Your task to perform on an android device: open a bookmark in the chrome app Image 0: 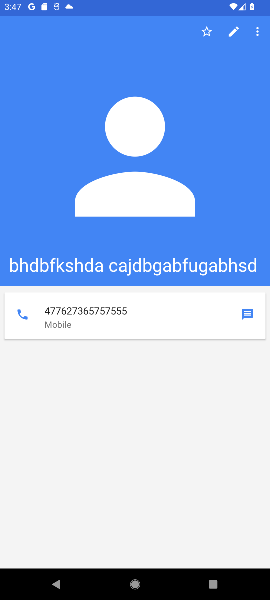
Step 0: press back button
Your task to perform on an android device: open a bookmark in the chrome app Image 1: 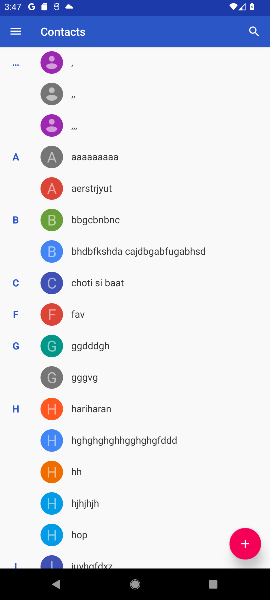
Step 1: press home button
Your task to perform on an android device: open a bookmark in the chrome app Image 2: 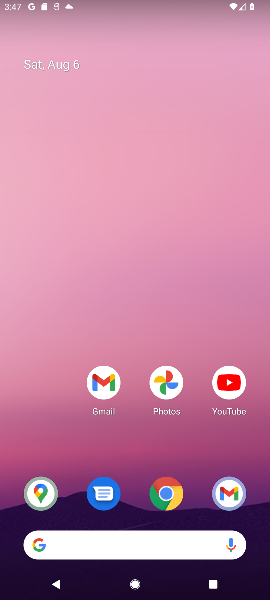
Step 2: drag from (154, 497) to (131, 50)
Your task to perform on an android device: open a bookmark in the chrome app Image 3: 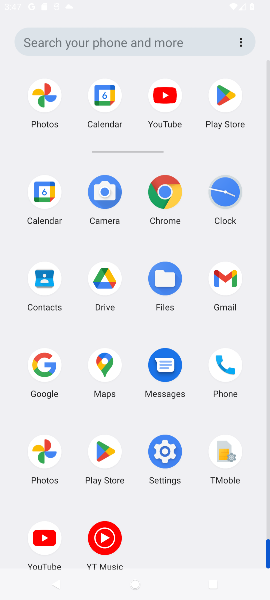
Step 3: drag from (107, 323) to (93, 41)
Your task to perform on an android device: open a bookmark in the chrome app Image 4: 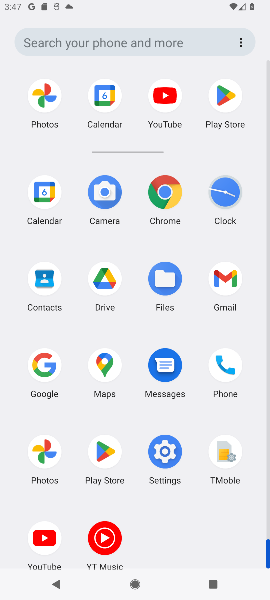
Step 4: click (153, 196)
Your task to perform on an android device: open a bookmark in the chrome app Image 5: 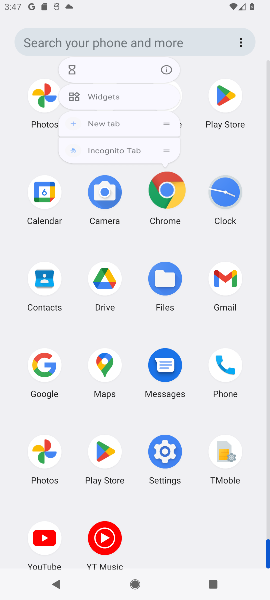
Step 5: click (156, 193)
Your task to perform on an android device: open a bookmark in the chrome app Image 6: 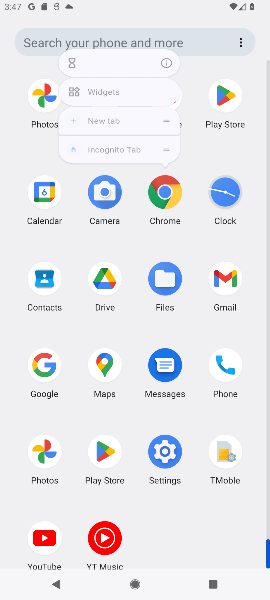
Step 6: click (156, 193)
Your task to perform on an android device: open a bookmark in the chrome app Image 7: 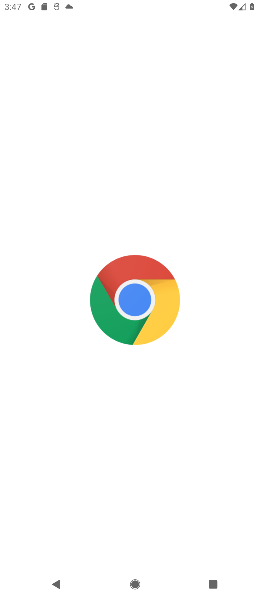
Step 7: click (161, 190)
Your task to perform on an android device: open a bookmark in the chrome app Image 8: 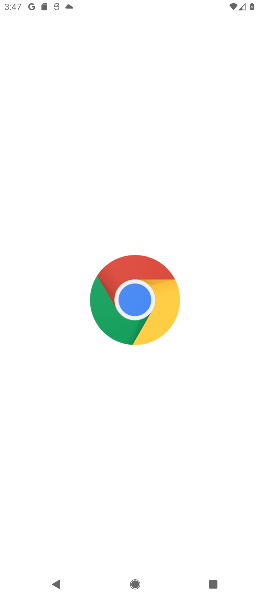
Step 8: click (161, 190)
Your task to perform on an android device: open a bookmark in the chrome app Image 9: 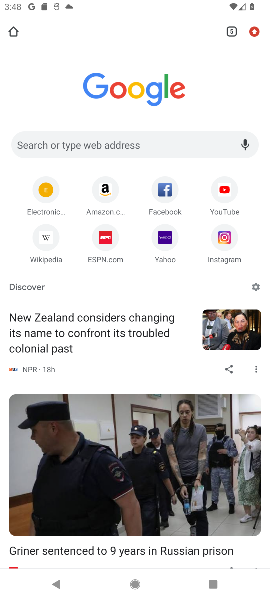
Step 9: click (253, 29)
Your task to perform on an android device: open a bookmark in the chrome app Image 10: 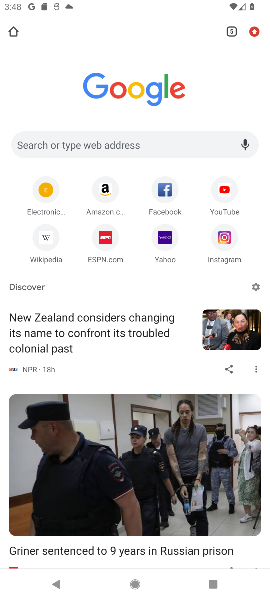
Step 10: drag from (254, 26) to (143, 341)
Your task to perform on an android device: open a bookmark in the chrome app Image 11: 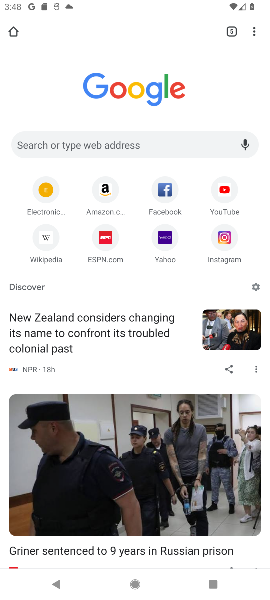
Step 11: click (252, 30)
Your task to perform on an android device: open a bookmark in the chrome app Image 12: 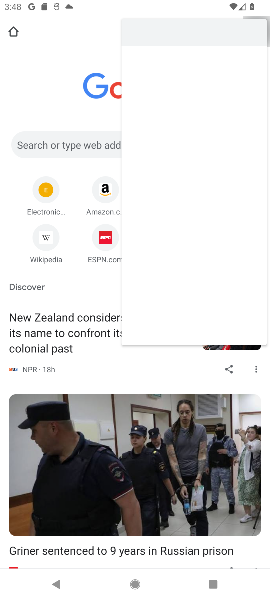
Step 12: click (252, 30)
Your task to perform on an android device: open a bookmark in the chrome app Image 13: 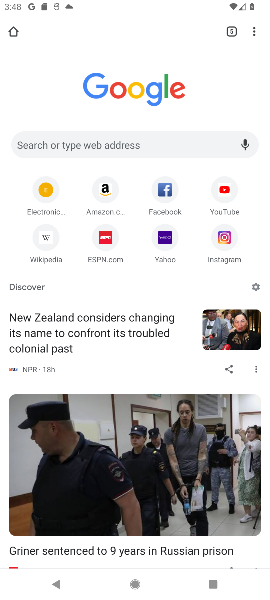
Step 13: click (252, 31)
Your task to perform on an android device: open a bookmark in the chrome app Image 14: 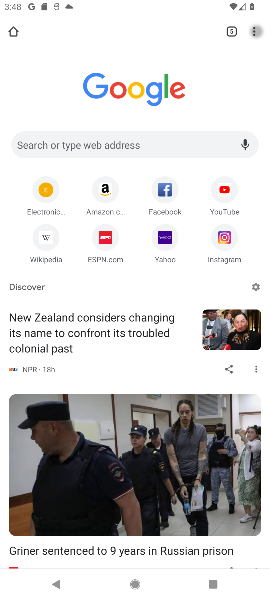
Step 14: drag from (252, 31) to (175, 207)
Your task to perform on an android device: open a bookmark in the chrome app Image 15: 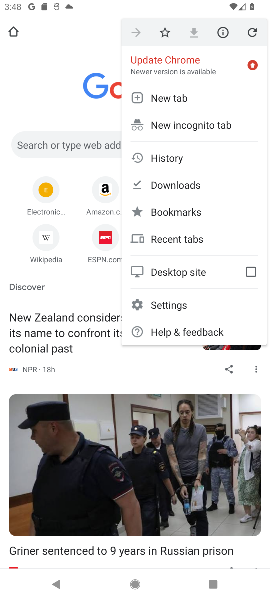
Step 15: click (175, 207)
Your task to perform on an android device: open a bookmark in the chrome app Image 16: 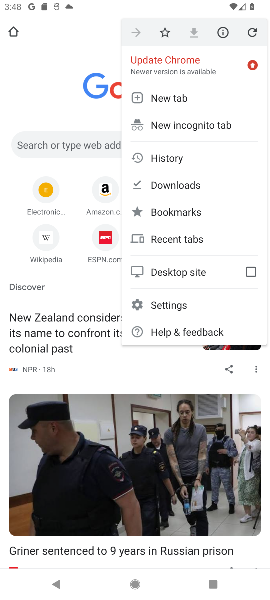
Step 16: click (175, 207)
Your task to perform on an android device: open a bookmark in the chrome app Image 17: 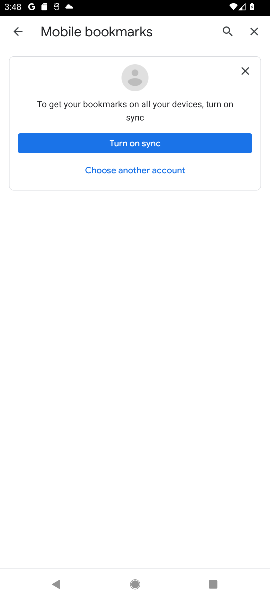
Step 17: task complete